Your task to perform on an android device: find snoozed emails in the gmail app Image 0: 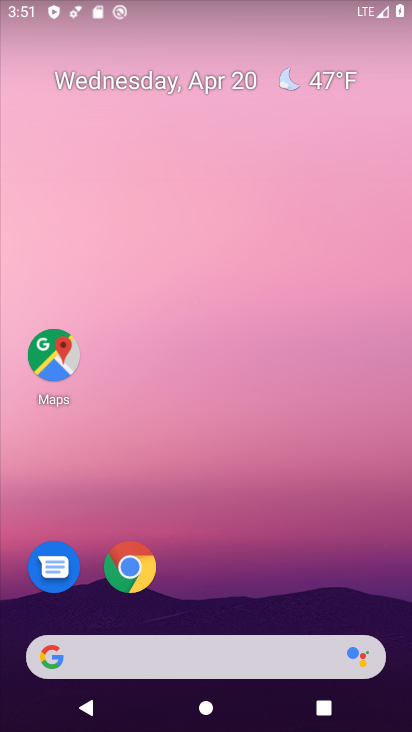
Step 0: drag from (348, 526) to (197, 20)
Your task to perform on an android device: find snoozed emails in the gmail app Image 1: 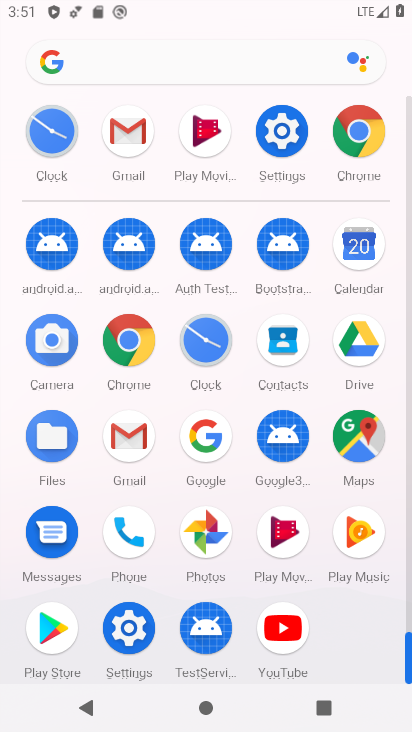
Step 1: click (126, 429)
Your task to perform on an android device: find snoozed emails in the gmail app Image 2: 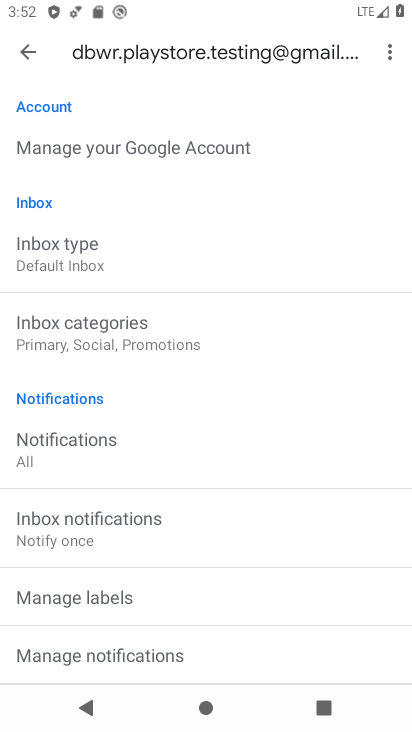
Step 2: click (27, 62)
Your task to perform on an android device: find snoozed emails in the gmail app Image 3: 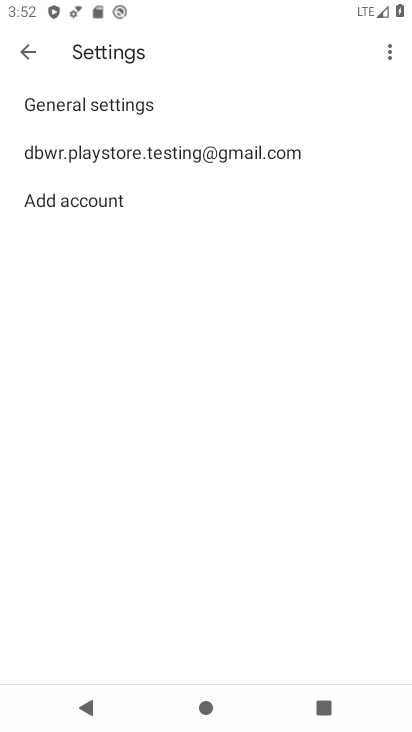
Step 3: click (27, 62)
Your task to perform on an android device: find snoozed emails in the gmail app Image 4: 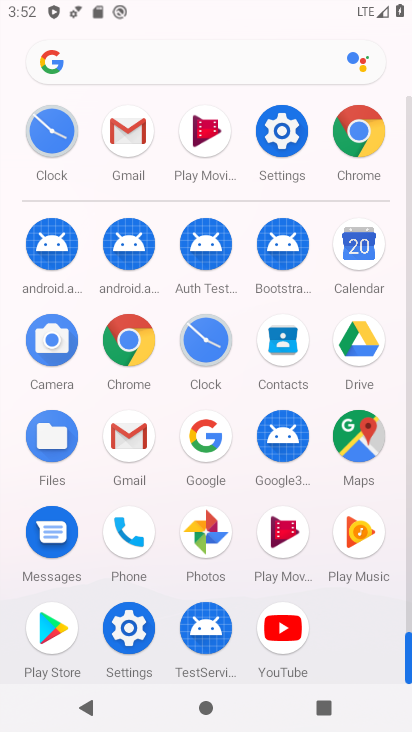
Step 4: click (126, 430)
Your task to perform on an android device: find snoozed emails in the gmail app Image 5: 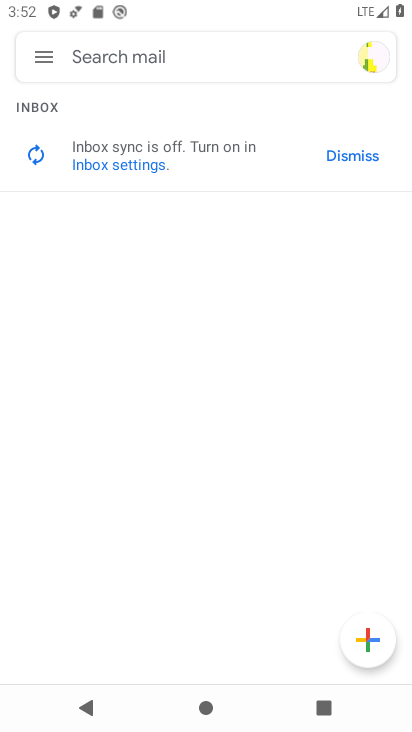
Step 5: click (40, 57)
Your task to perform on an android device: find snoozed emails in the gmail app Image 6: 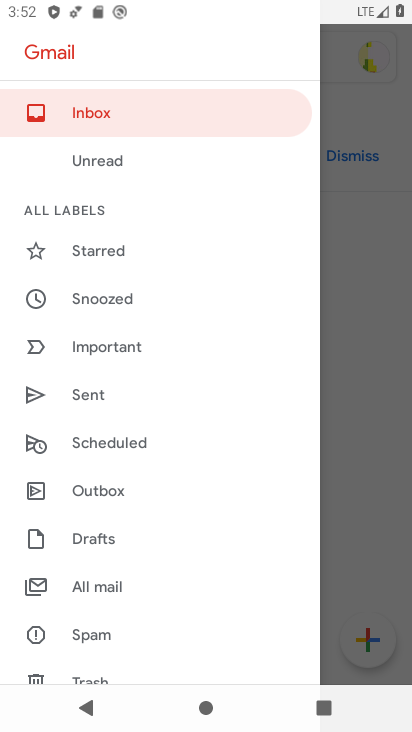
Step 6: click (118, 285)
Your task to perform on an android device: find snoozed emails in the gmail app Image 7: 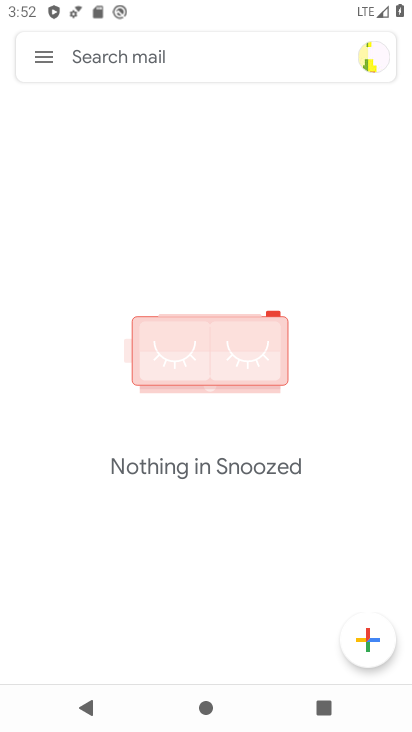
Step 7: task complete